Your task to perform on an android device: Show me popular videos on Youtube Image 0: 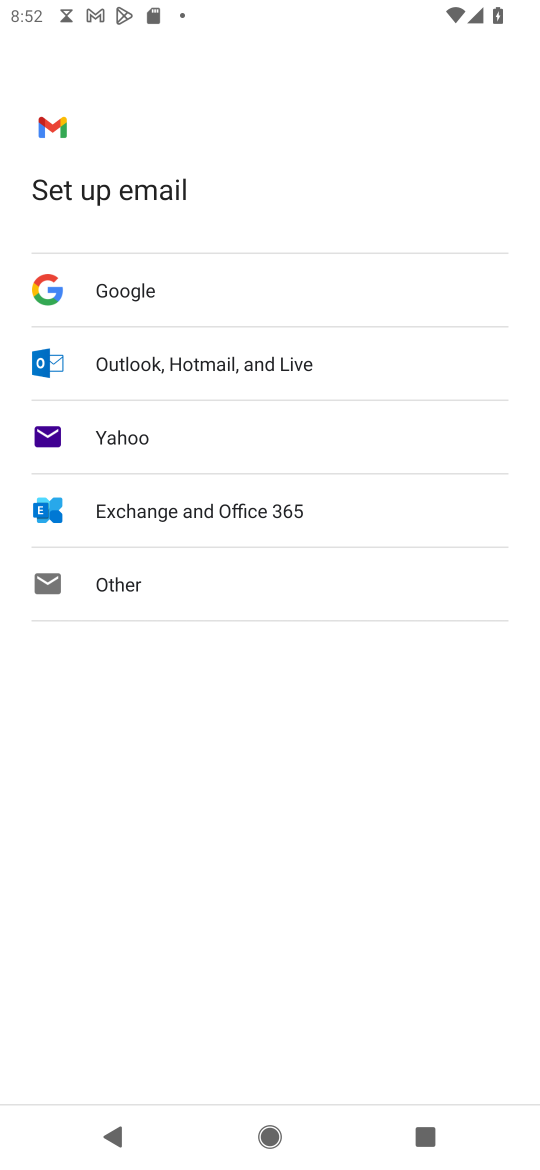
Step 0: press home button
Your task to perform on an android device: Show me popular videos on Youtube Image 1: 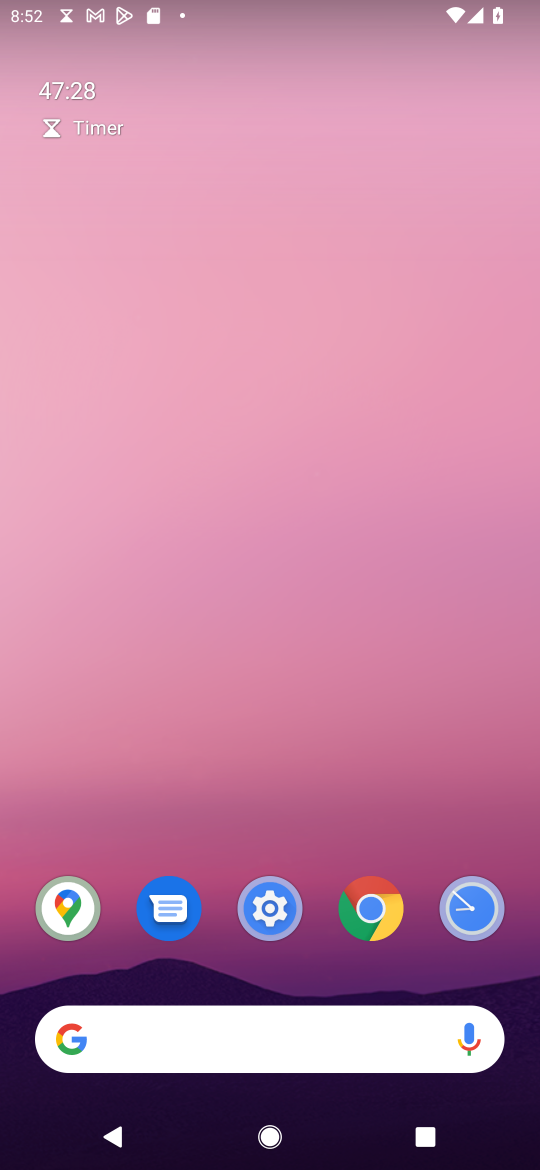
Step 1: drag from (309, 1016) to (408, 416)
Your task to perform on an android device: Show me popular videos on Youtube Image 2: 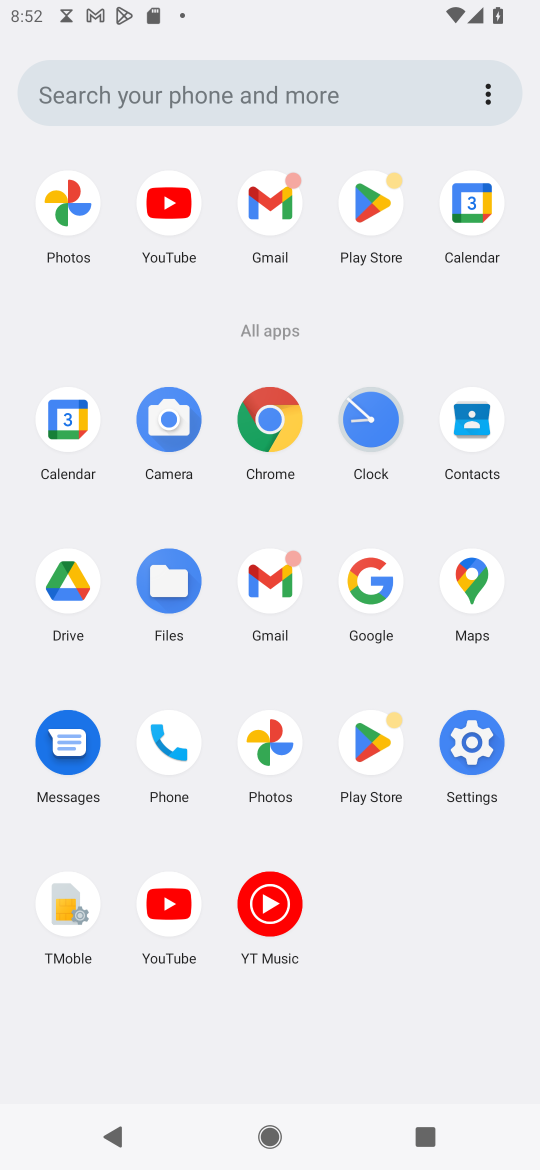
Step 2: click (183, 901)
Your task to perform on an android device: Show me popular videos on Youtube Image 3: 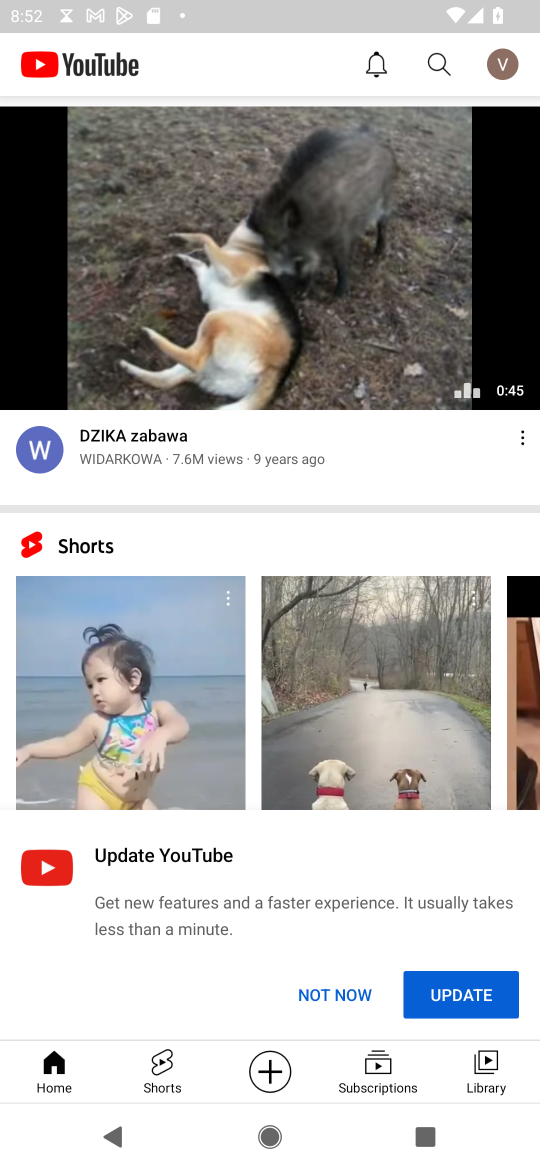
Step 3: drag from (307, 312) to (407, 674)
Your task to perform on an android device: Show me popular videos on Youtube Image 4: 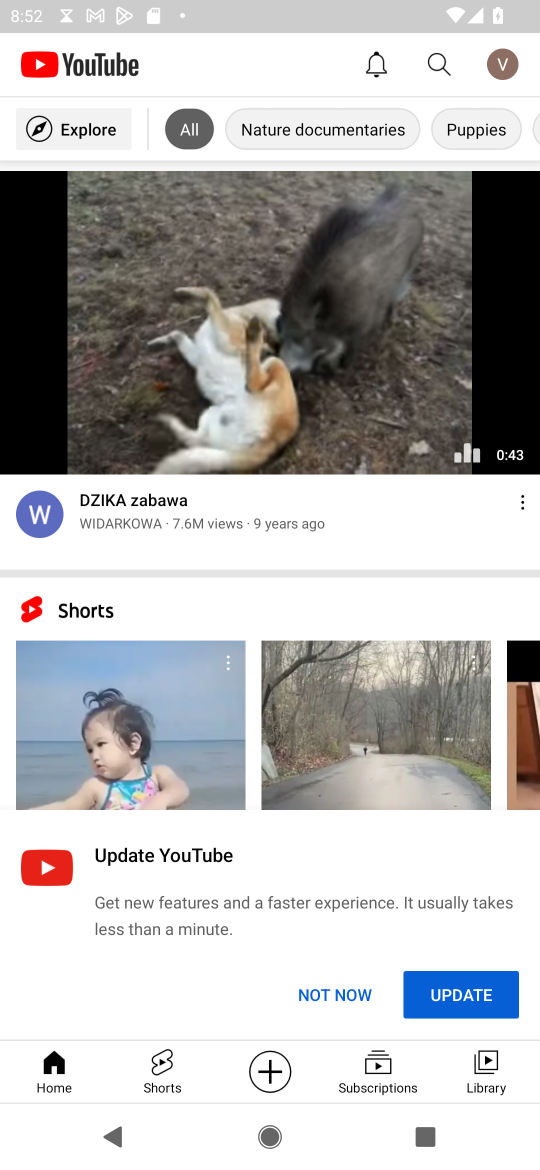
Step 4: click (90, 117)
Your task to perform on an android device: Show me popular videos on Youtube Image 5: 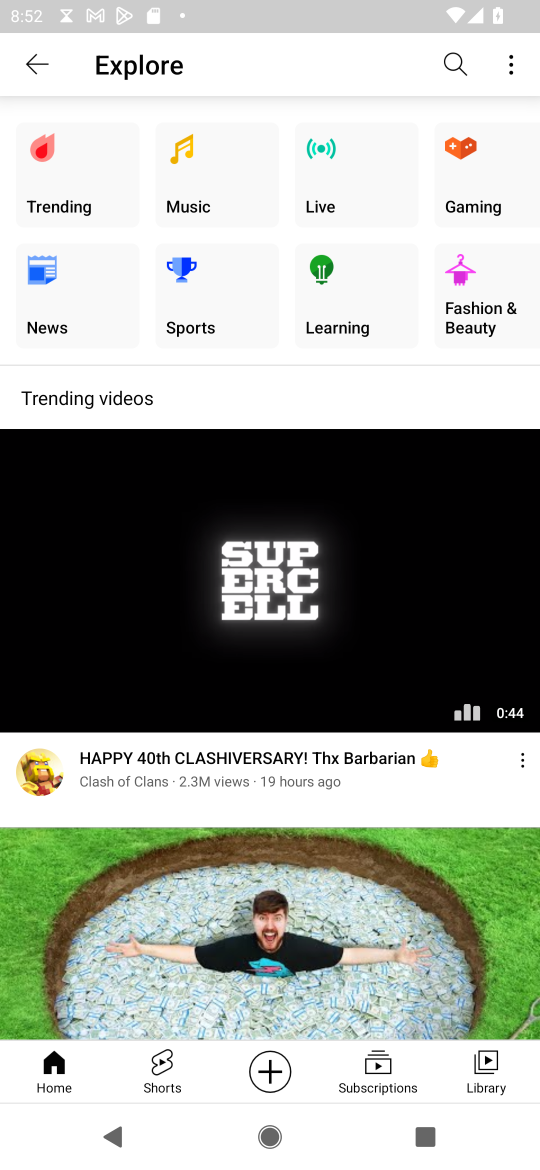
Step 5: click (45, 169)
Your task to perform on an android device: Show me popular videos on Youtube Image 6: 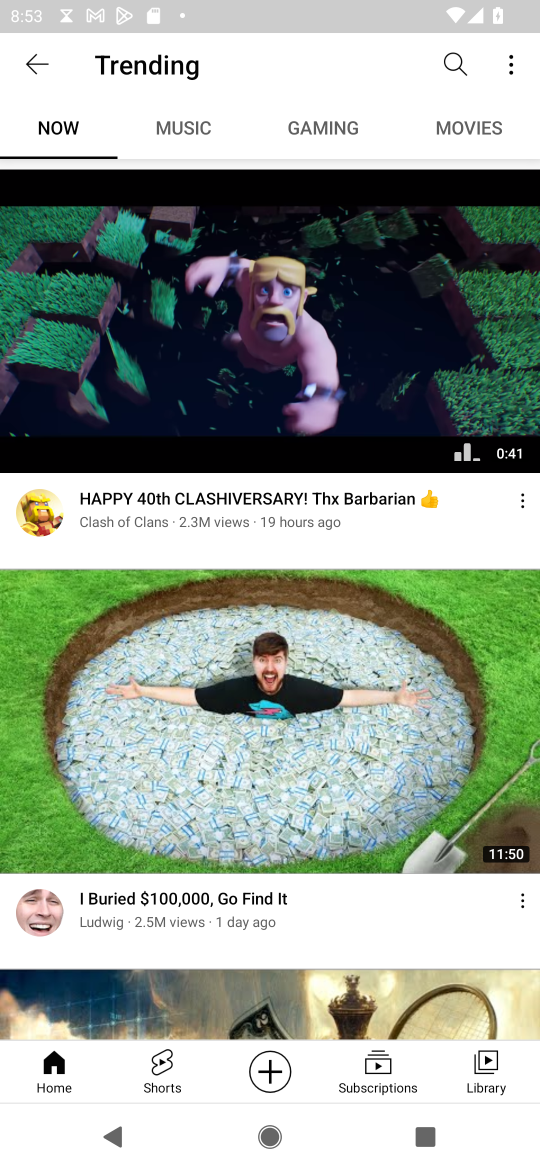
Step 6: task complete